Your task to perform on an android device: turn on wifi Image 0: 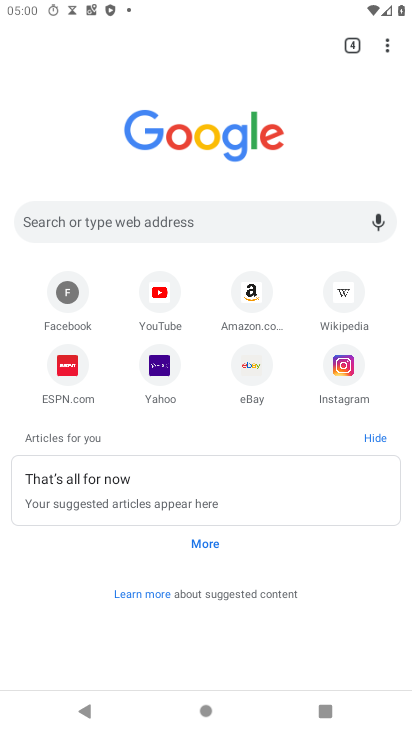
Step 0: press home button
Your task to perform on an android device: turn on wifi Image 1: 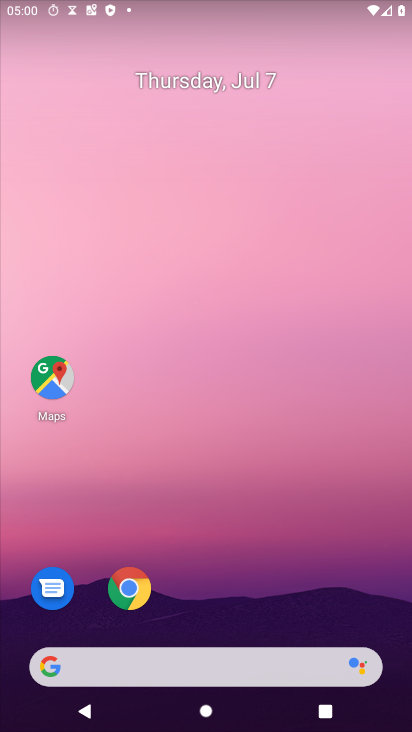
Step 1: task complete